Your task to perform on an android device: Open the phone app and click the voicemail tab. Image 0: 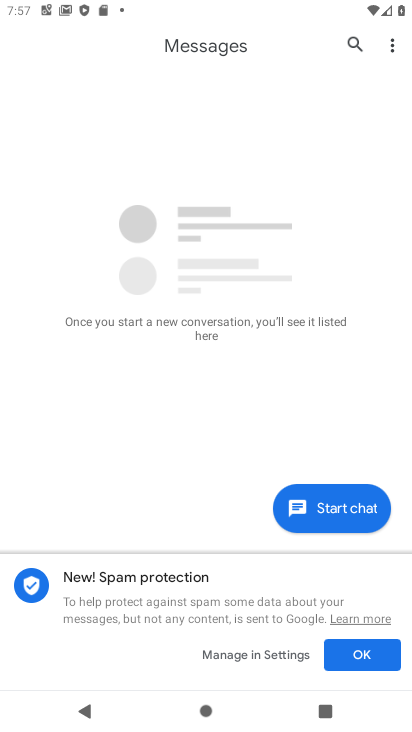
Step 0: drag from (348, 611) to (281, 75)
Your task to perform on an android device: Open the phone app and click the voicemail tab. Image 1: 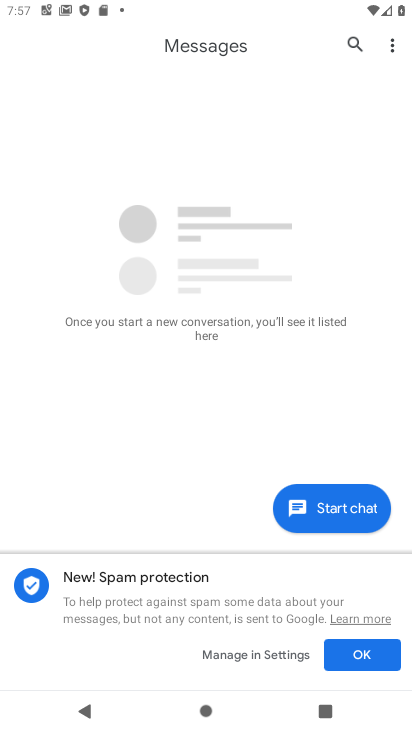
Step 1: press home button
Your task to perform on an android device: Open the phone app and click the voicemail tab. Image 2: 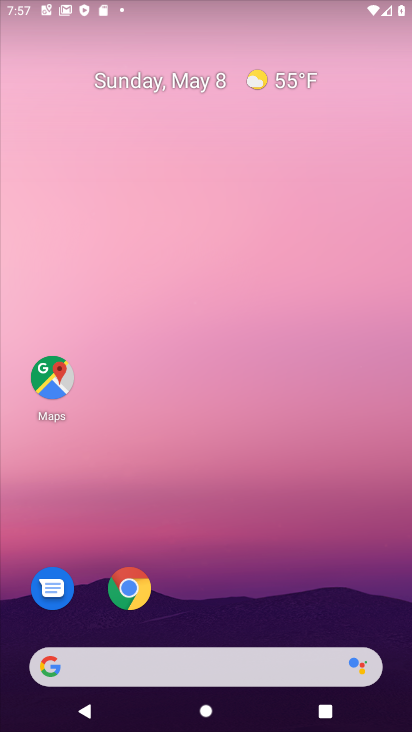
Step 2: drag from (319, 274) to (279, 7)
Your task to perform on an android device: Open the phone app and click the voicemail tab. Image 3: 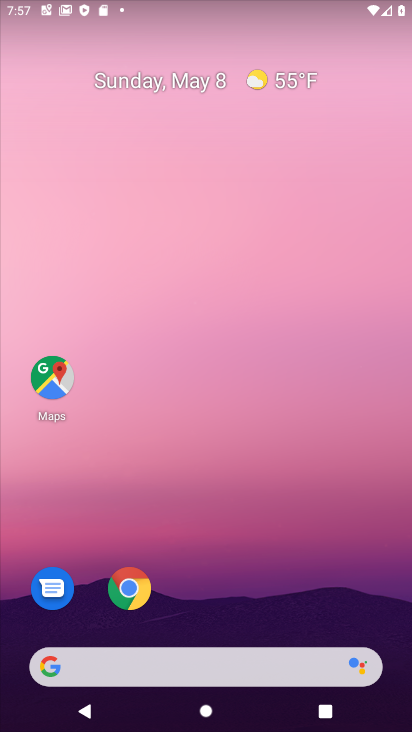
Step 3: drag from (325, 599) to (248, 26)
Your task to perform on an android device: Open the phone app and click the voicemail tab. Image 4: 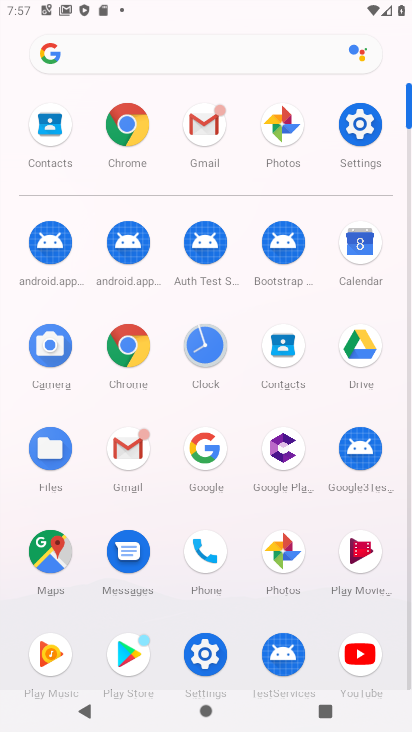
Step 4: click (198, 549)
Your task to perform on an android device: Open the phone app and click the voicemail tab. Image 5: 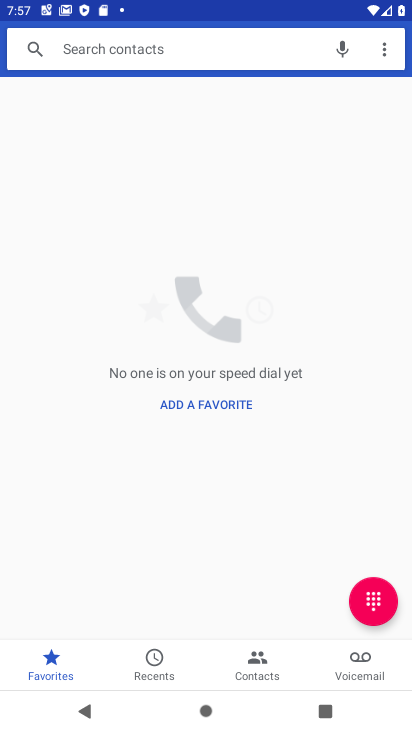
Step 5: click (355, 670)
Your task to perform on an android device: Open the phone app and click the voicemail tab. Image 6: 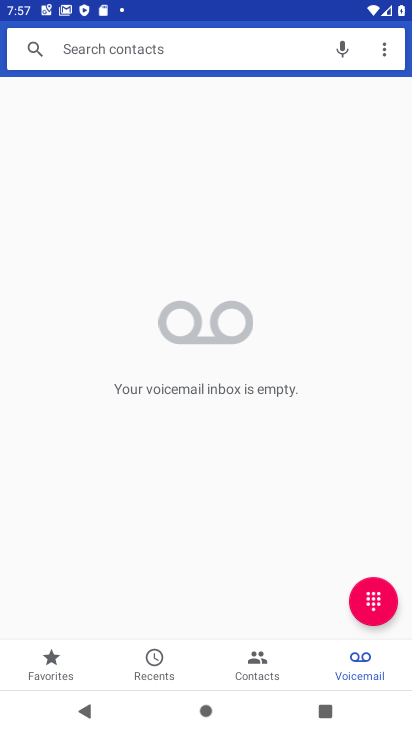
Step 6: task complete